Your task to perform on an android device: open a new tab in the chrome app Image 0: 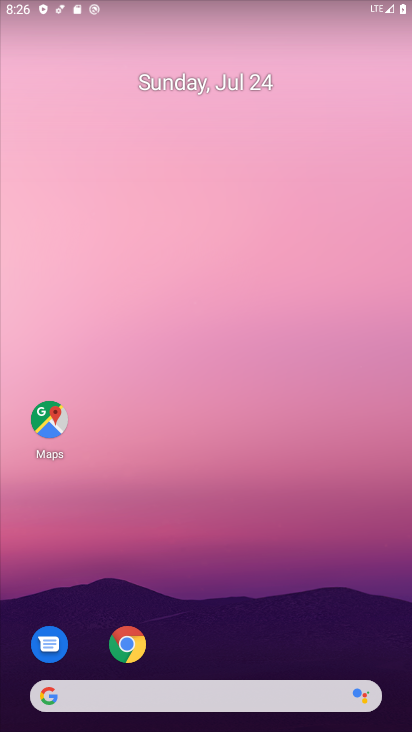
Step 0: click (144, 646)
Your task to perform on an android device: open a new tab in the chrome app Image 1: 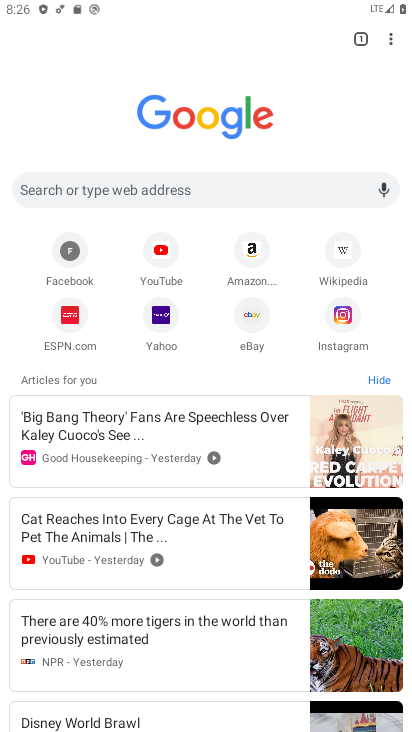
Step 1: click (358, 34)
Your task to perform on an android device: open a new tab in the chrome app Image 2: 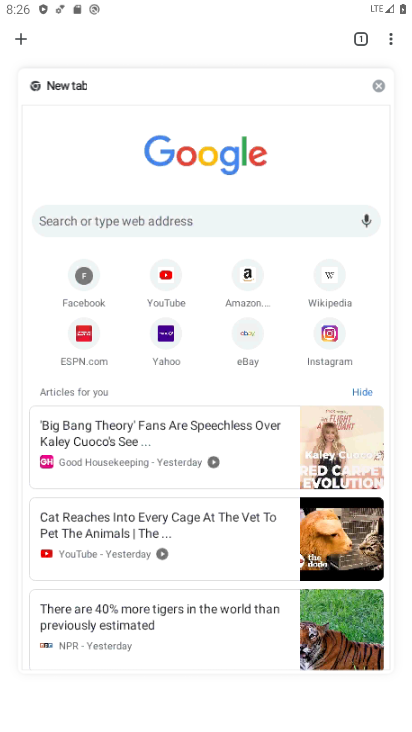
Step 2: click (21, 36)
Your task to perform on an android device: open a new tab in the chrome app Image 3: 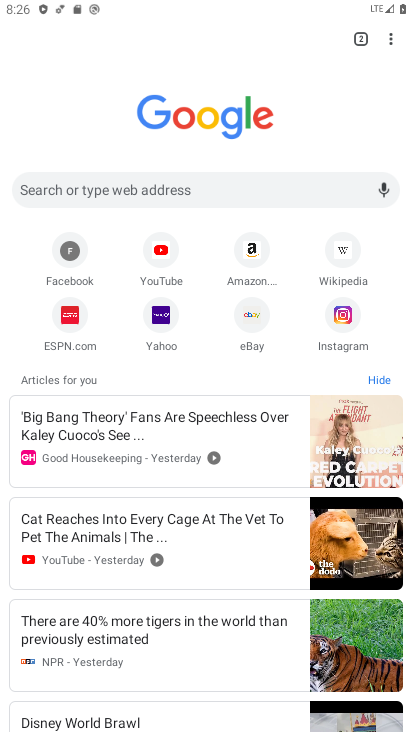
Step 3: task complete